Your task to perform on an android device: empty trash in google photos Image 0: 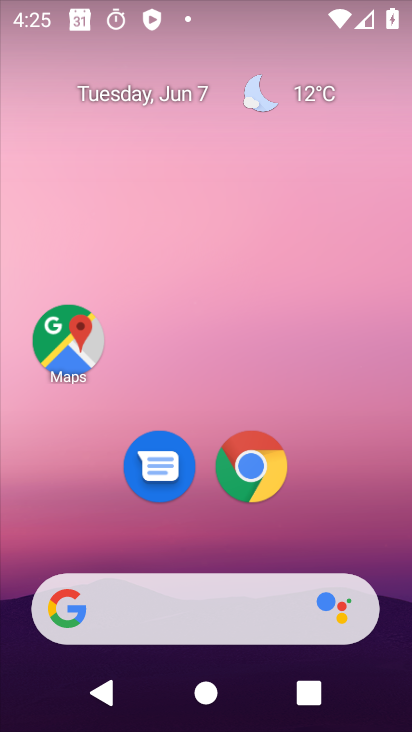
Step 0: drag from (405, 547) to (292, 98)
Your task to perform on an android device: empty trash in google photos Image 1: 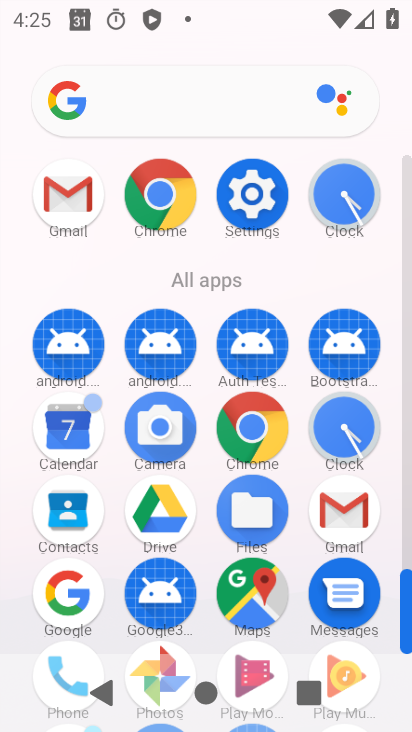
Step 1: click (162, 643)
Your task to perform on an android device: empty trash in google photos Image 2: 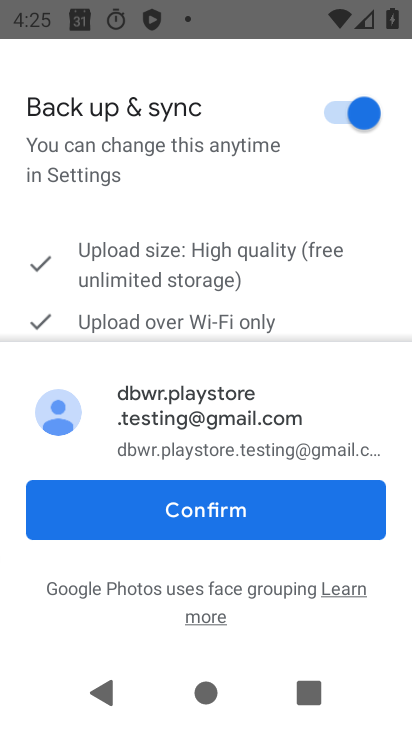
Step 2: click (271, 501)
Your task to perform on an android device: empty trash in google photos Image 3: 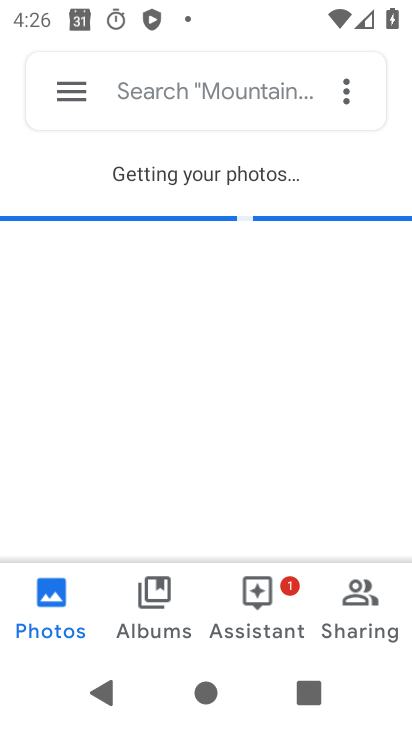
Step 3: click (66, 88)
Your task to perform on an android device: empty trash in google photos Image 4: 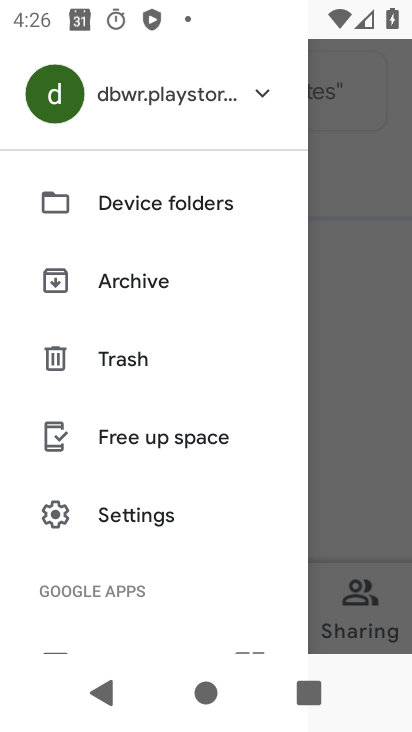
Step 4: click (146, 381)
Your task to perform on an android device: empty trash in google photos Image 5: 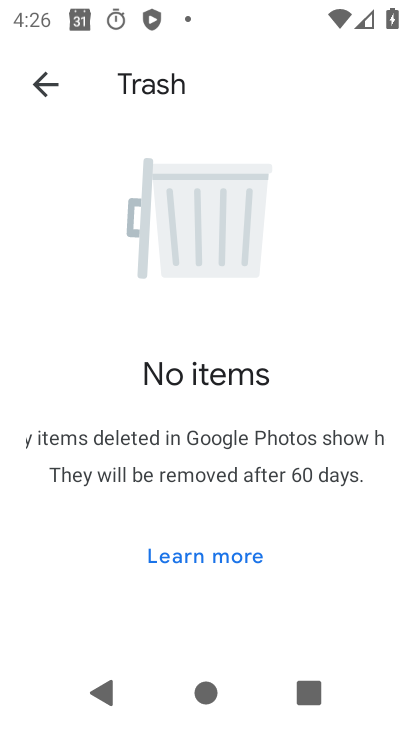
Step 5: task complete